Your task to perform on an android device: toggle improve location accuracy Image 0: 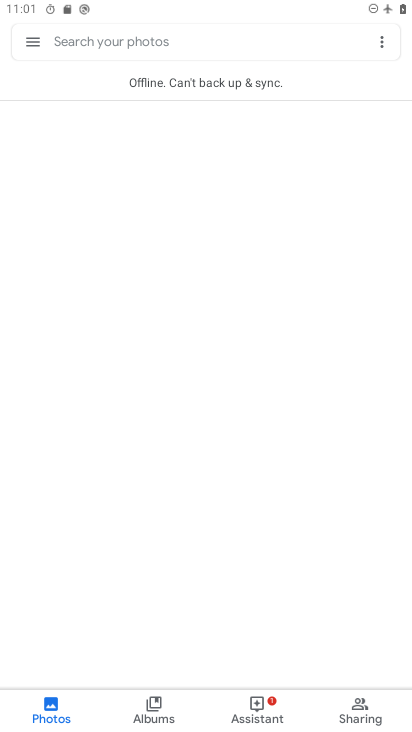
Step 0: press home button
Your task to perform on an android device: toggle improve location accuracy Image 1: 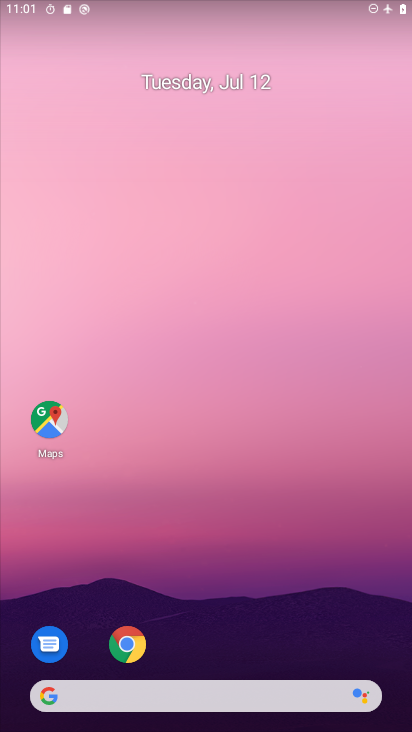
Step 1: drag from (226, 621) to (248, 190)
Your task to perform on an android device: toggle improve location accuracy Image 2: 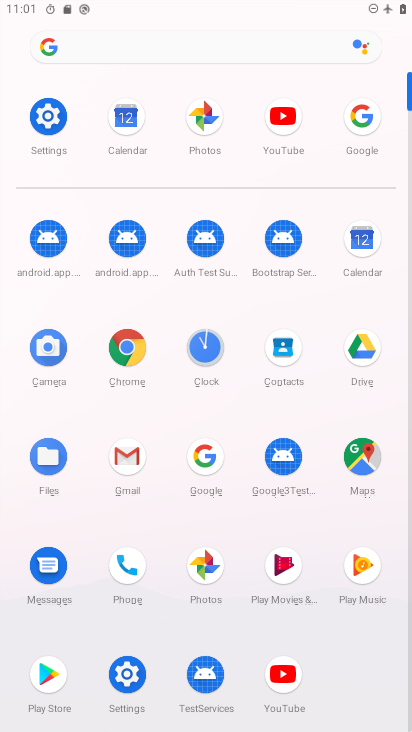
Step 2: click (39, 137)
Your task to perform on an android device: toggle improve location accuracy Image 3: 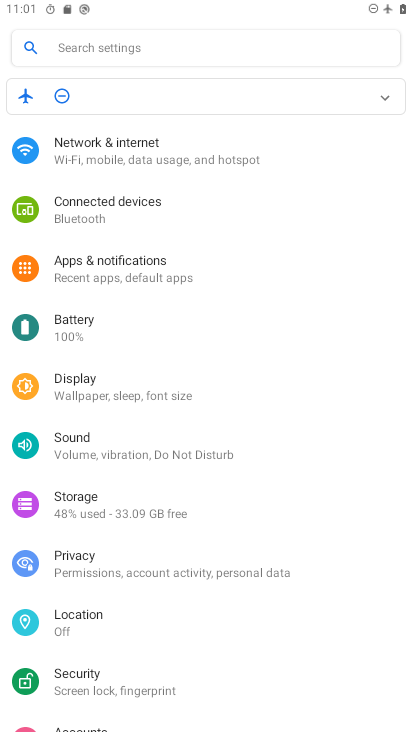
Step 3: click (137, 627)
Your task to perform on an android device: toggle improve location accuracy Image 4: 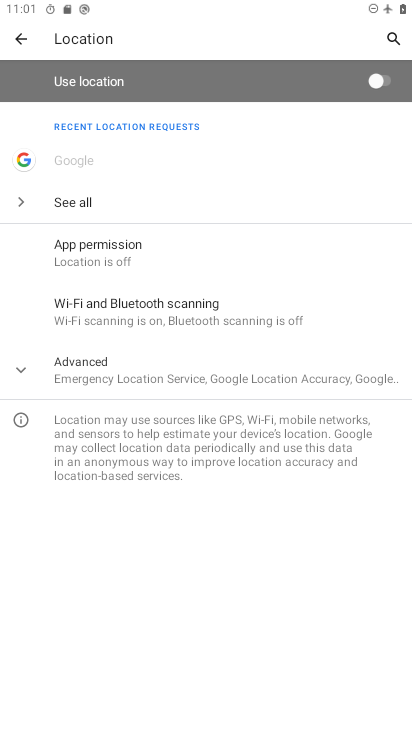
Step 4: click (166, 369)
Your task to perform on an android device: toggle improve location accuracy Image 5: 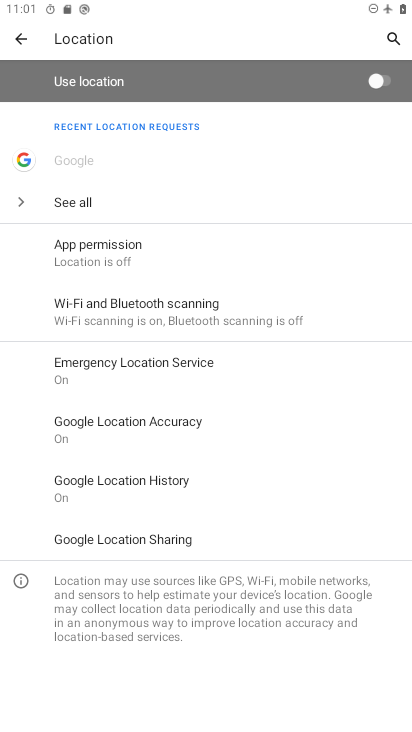
Step 5: click (218, 430)
Your task to perform on an android device: toggle improve location accuracy Image 6: 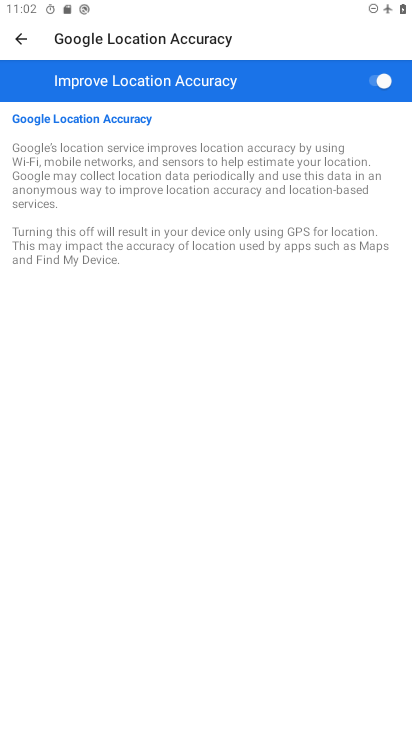
Step 6: click (362, 81)
Your task to perform on an android device: toggle improve location accuracy Image 7: 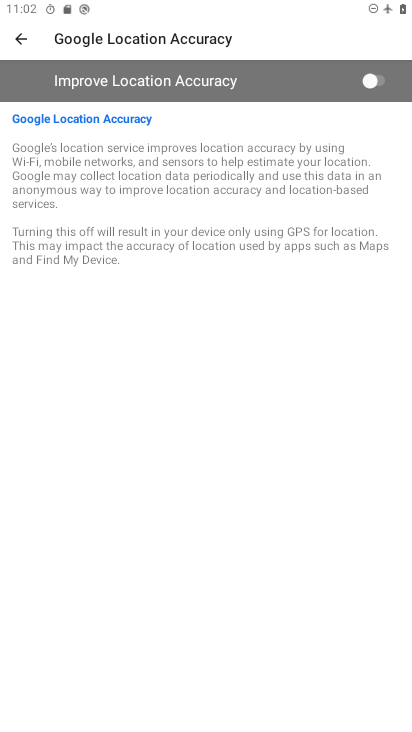
Step 7: task complete